Your task to perform on an android device: delete a single message in the gmail app Image 0: 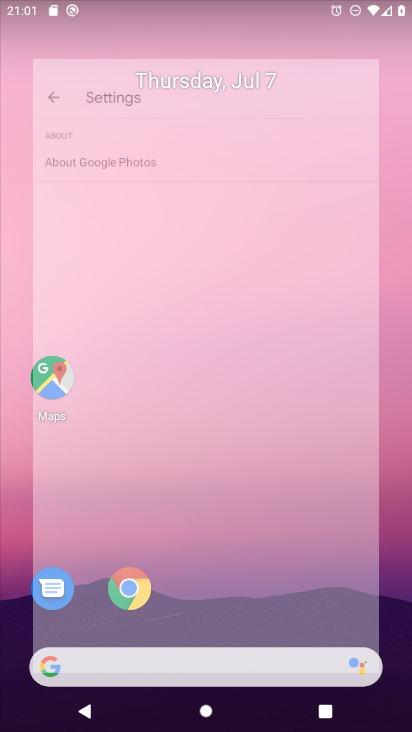
Step 0: drag from (278, 647) to (248, 324)
Your task to perform on an android device: delete a single message in the gmail app Image 1: 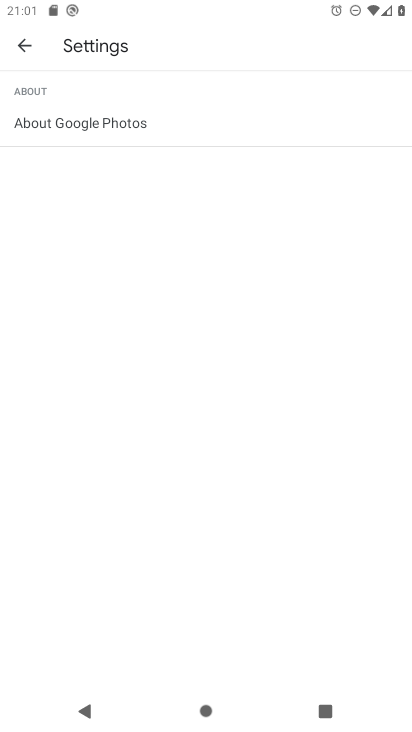
Step 1: press home button
Your task to perform on an android device: delete a single message in the gmail app Image 2: 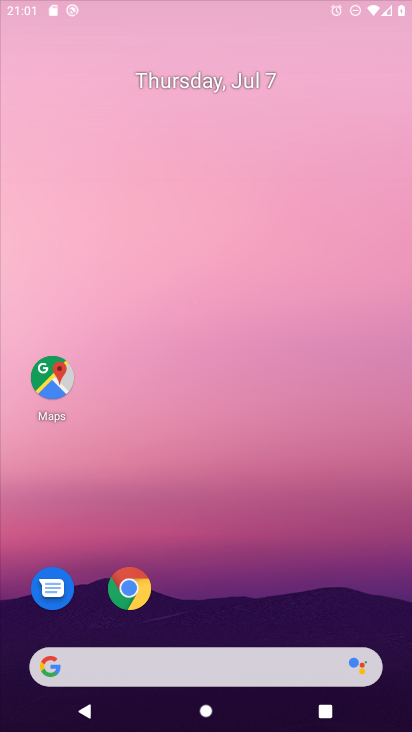
Step 2: drag from (240, 635) to (240, 328)
Your task to perform on an android device: delete a single message in the gmail app Image 3: 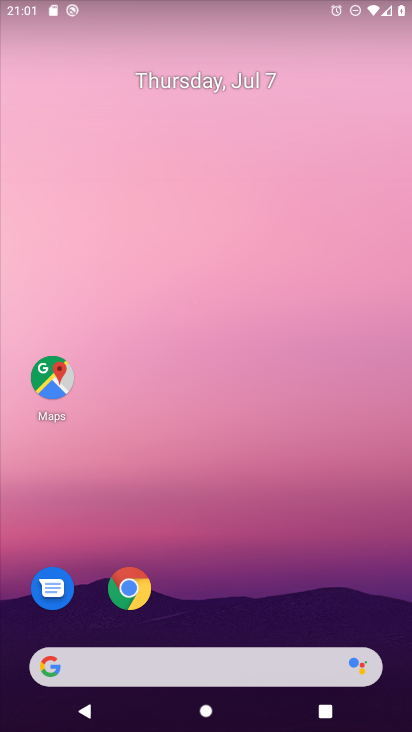
Step 3: drag from (240, 637) to (230, 285)
Your task to perform on an android device: delete a single message in the gmail app Image 4: 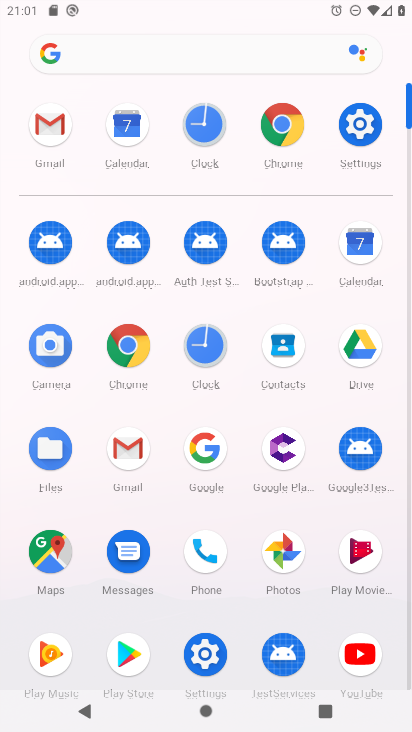
Step 4: click (61, 107)
Your task to perform on an android device: delete a single message in the gmail app Image 5: 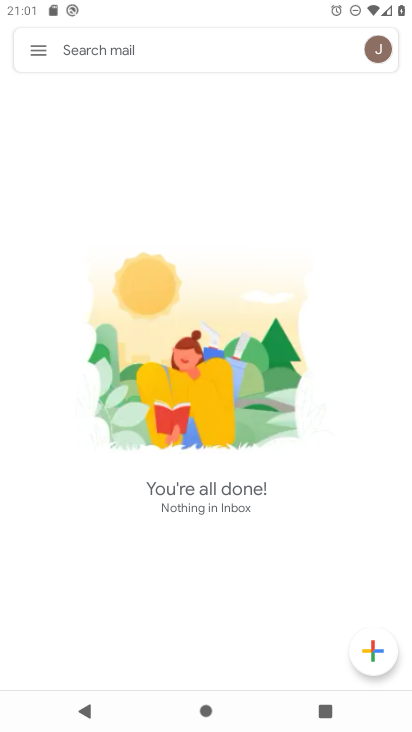
Step 5: click (35, 60)
Your task to perform on an android device: delete a single message in the gmail app Image 6: 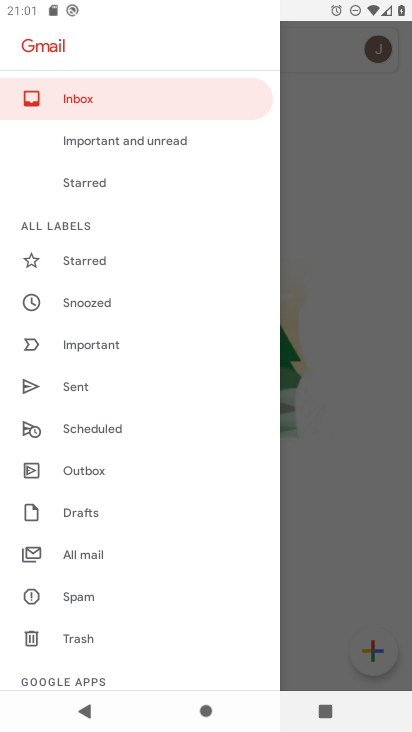
Step 6: click (115, 551)
Your task to perform on an android device: delete a single message in the gmail app Image 7: 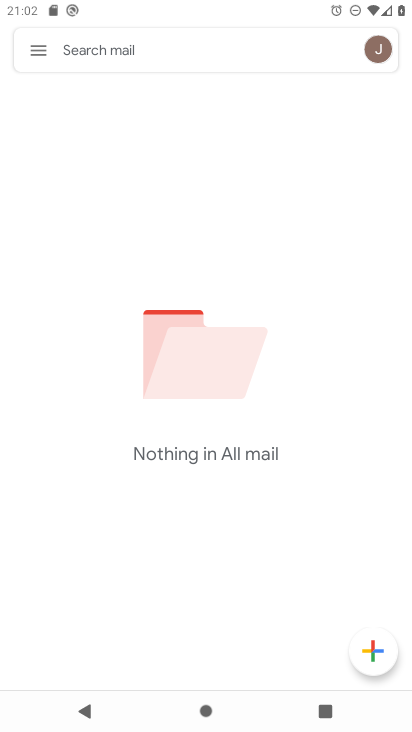
Step 7: click (30, 47)
Your task to perform on an android device: delete a single message in the gmail app Image 8: 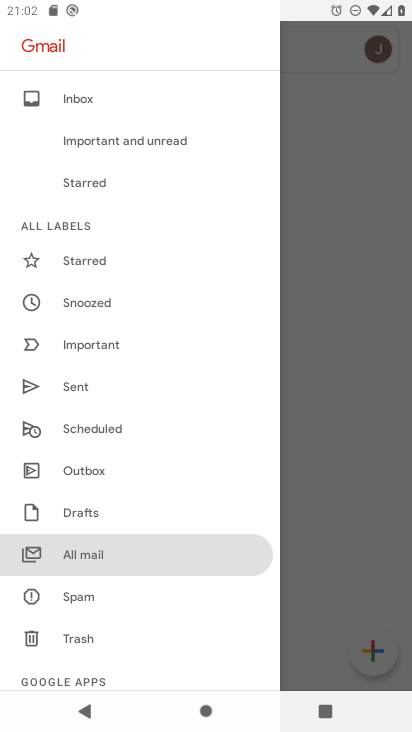
Step 8: click (115, 550)
Your task to perform on an android device: delete a single message in the gmail app Image 9: 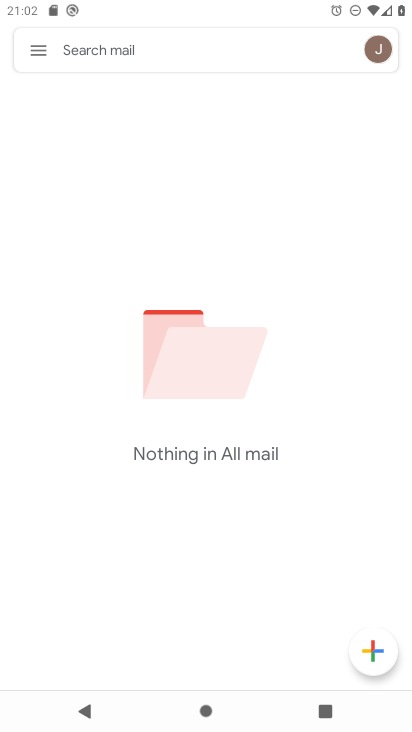
Step 9: task complete